Your task to perform on an android device: change notification settings in the gmail app Image 0: 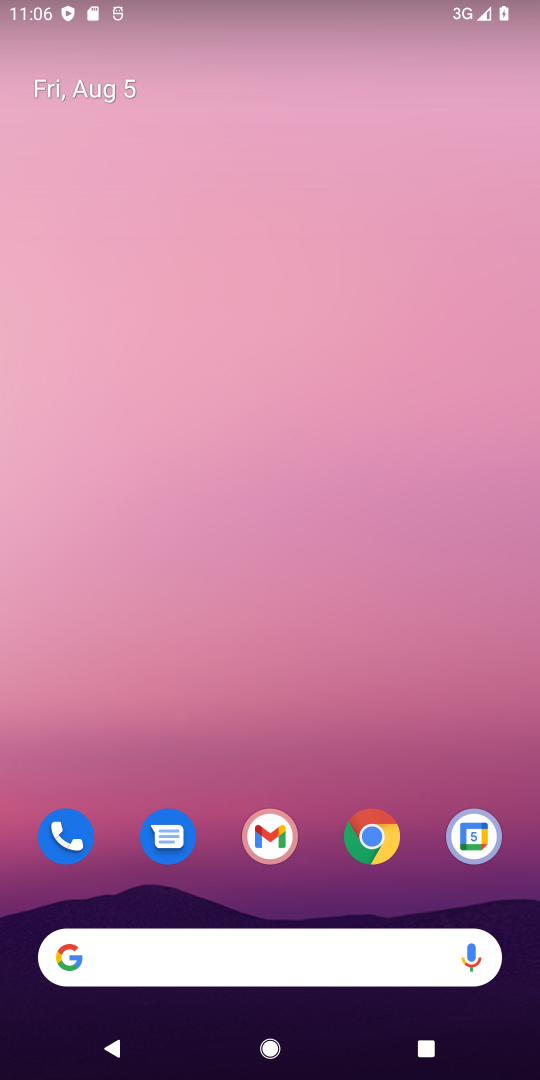
Step 0: drag from (232, 825) to (301, 271)
Your task to perform on an android device: change notification settings in the gmail app Image 1: 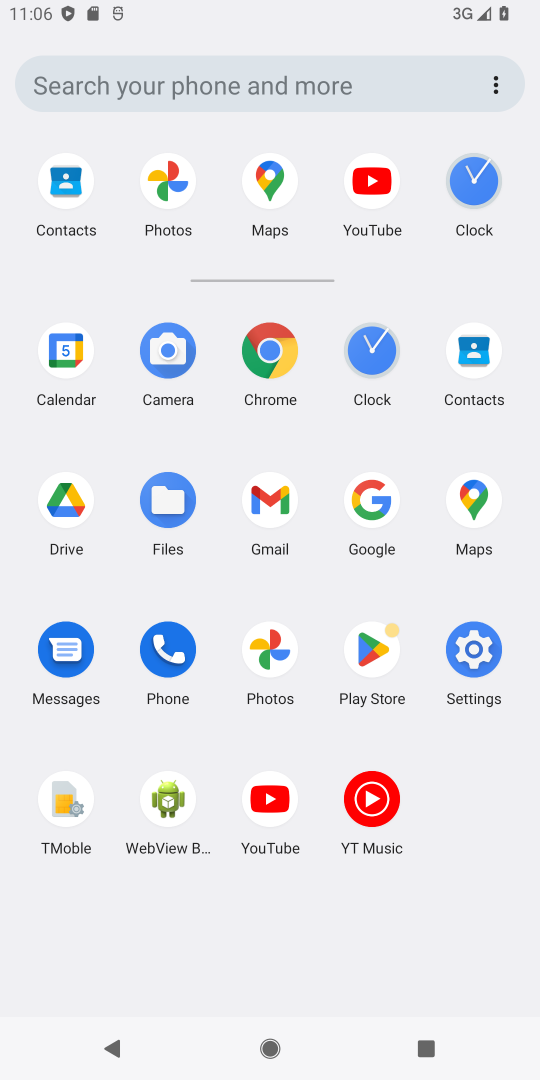
Step 1: click (268, 502)
Your task to perform on an android device: change notification settings in the gmail app Image 2: 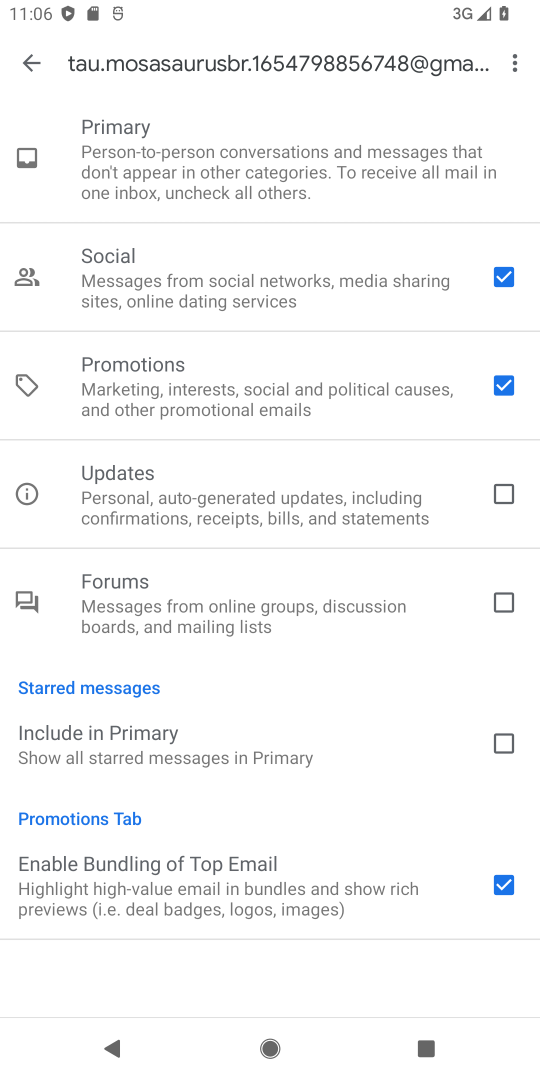
Step 2: drag from (209, 266) to (209, 696)
Your task to perform on an android device: change notification settings in the gmail app Image 3: 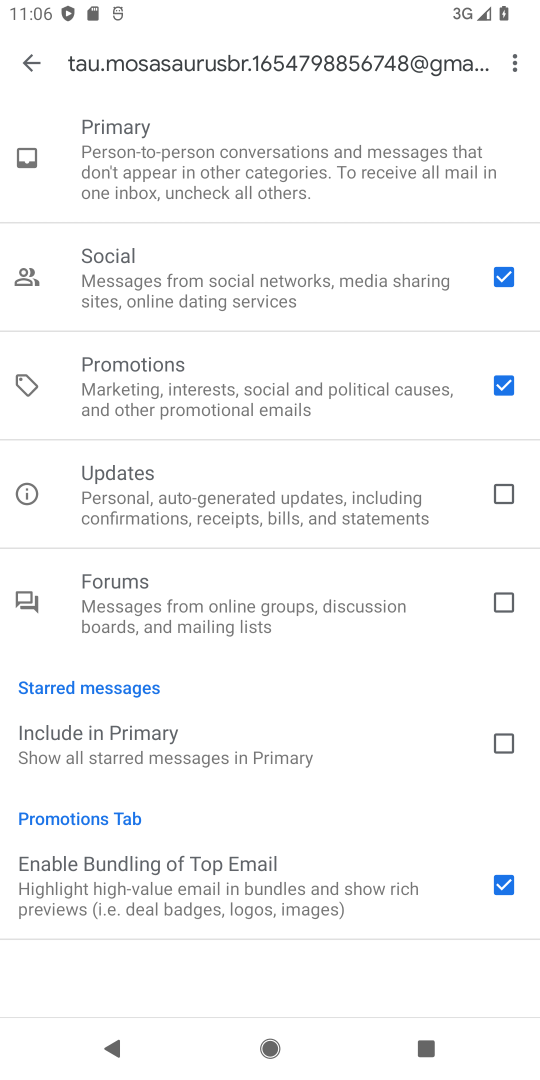
Step 3: click (20, 58)
Your task to perform on an android device: change notification settings in the gmail app Image 4: 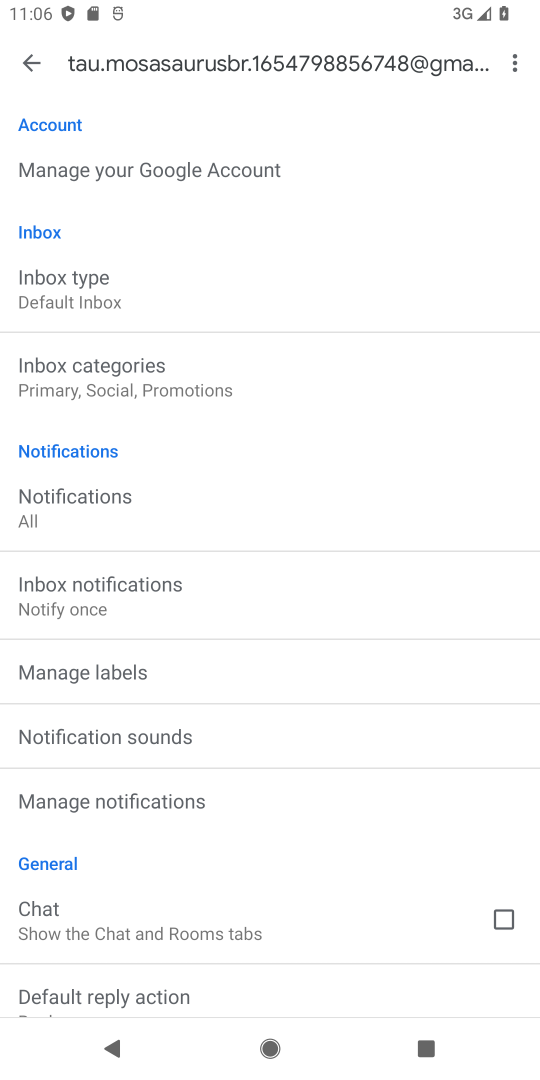
Step 4: drag from (284, 280) to (269, 690)
Your task to perform on an android device: change notification settings in the gmail app Image 5: 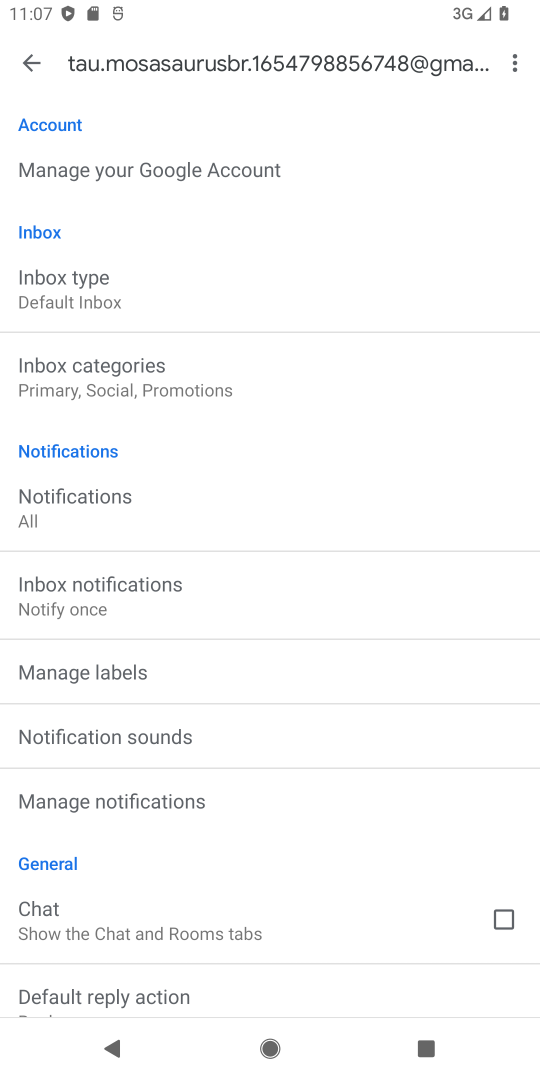
Step 5: click (169, 809)
Your task to perform on an android device: change notification settings in the gmail app Image 6: 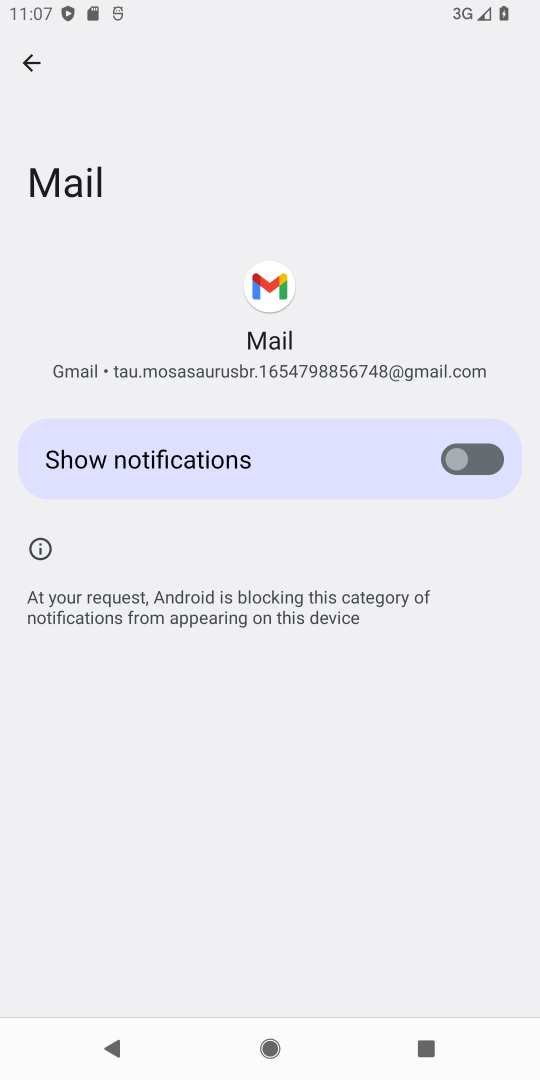
Step 6: click (466, 447)
Your task to perform on an android device: change notification settings in the gmail app Image 7: 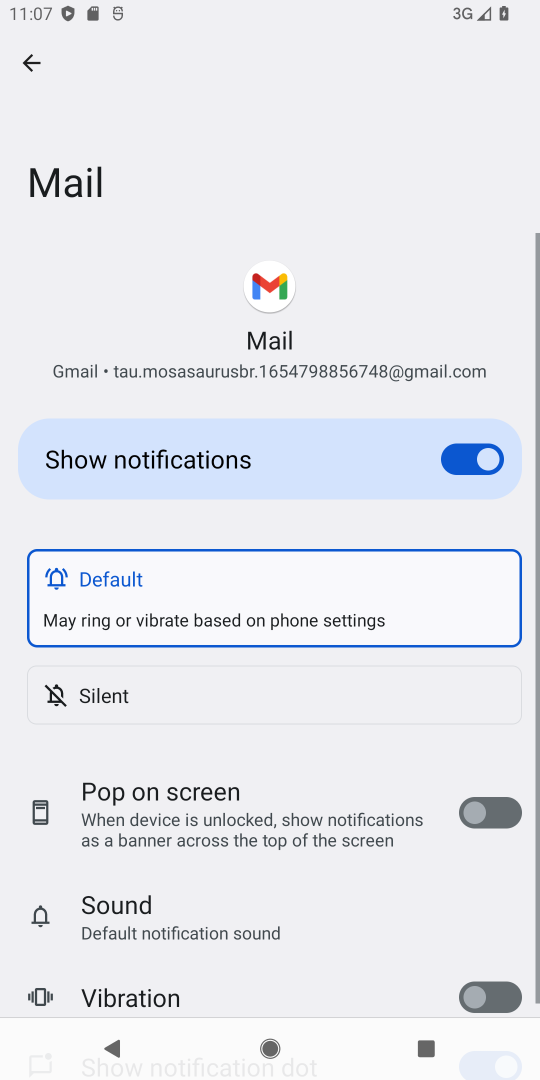
Step 7: task complete